Your task to perform on an android device: toggle priority inbox in the gmail app Image 0: 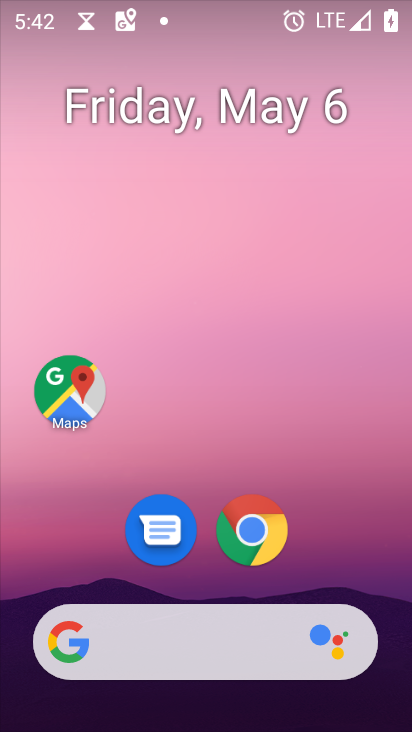
Step 0: drag from (338, 550) to (245, 68)
Your task to perform on an android device: toggle priority inbox in the gmail app Image 1: 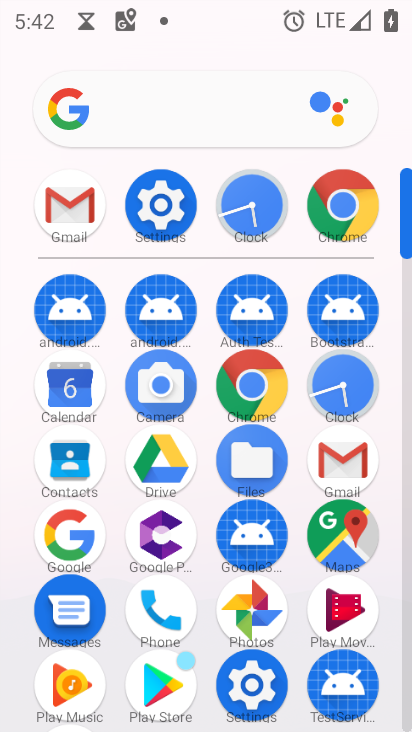
Step 1: click (350, 462)
Your task to perform on an android device: toggle priority inbox in the gmail app Image 2: 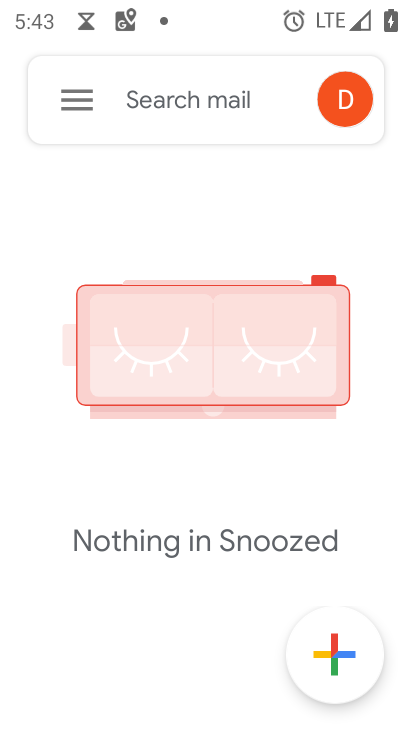
Step 2: click (68, 100)
Your task to perform on an android device: toggle priority inbox in the gmail app Image 3: 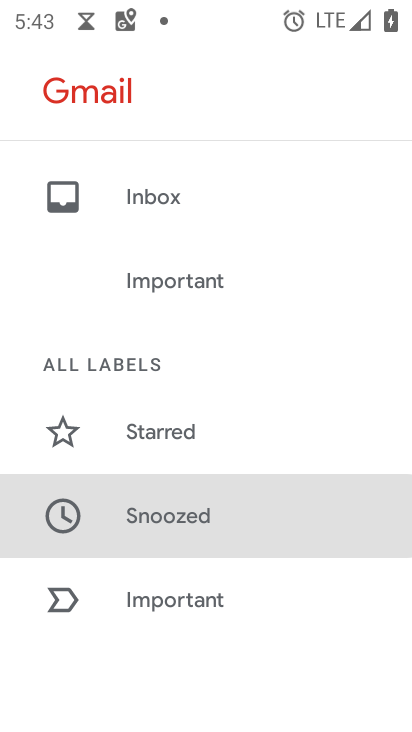
Step 3: drag from (243, 615) to (235, 142)
Your task to perform on an android device: toggle priority inbox in the gmail app Image 4: 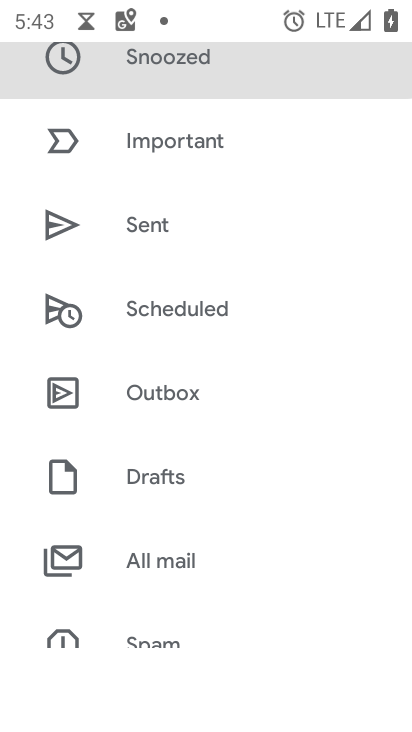
Step 4: drag from (199, 589) to (220, 161)
Your task to perform on an android device: toggle priority inbox in the gmail app Image 5: 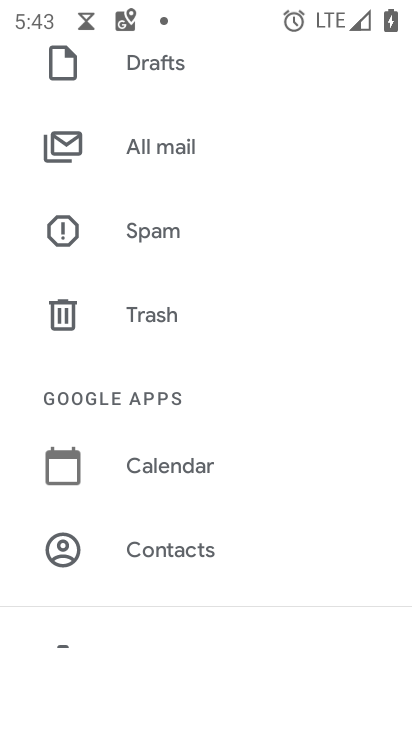
Step 5: drag from (217, 565) to (213, 165)
Your task to perform on an android device: toggle priority inbox in the gmail app Image 6: 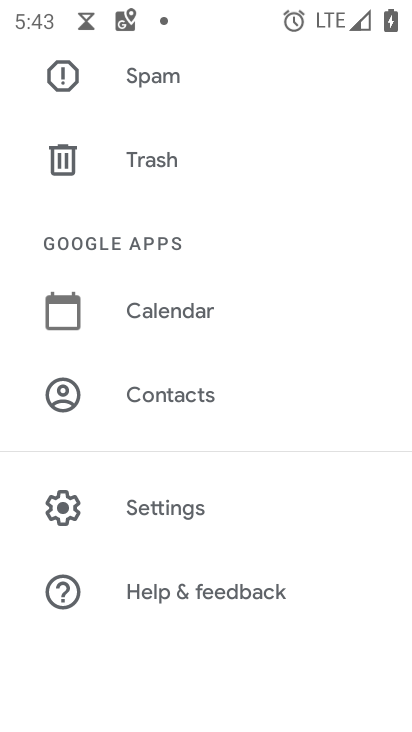
Step 6: click (167, 546)
Your task to perform on an android device: toggle priority inbox in the gmail app Image 7: 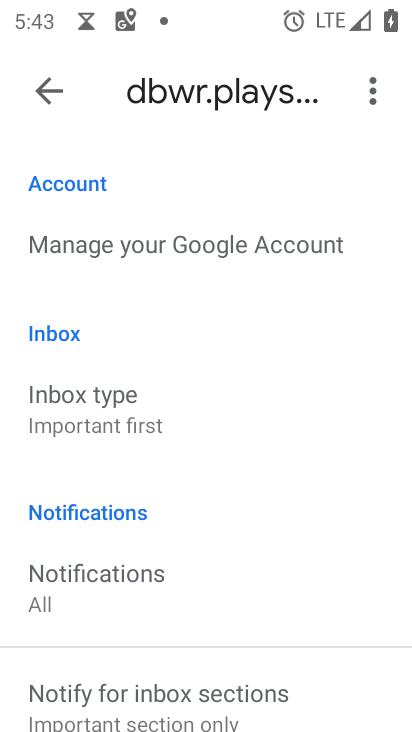
Step 7: click (95, 413)
Your task to perform on an android device: toggle priority inbox in the gmail app Image 8: 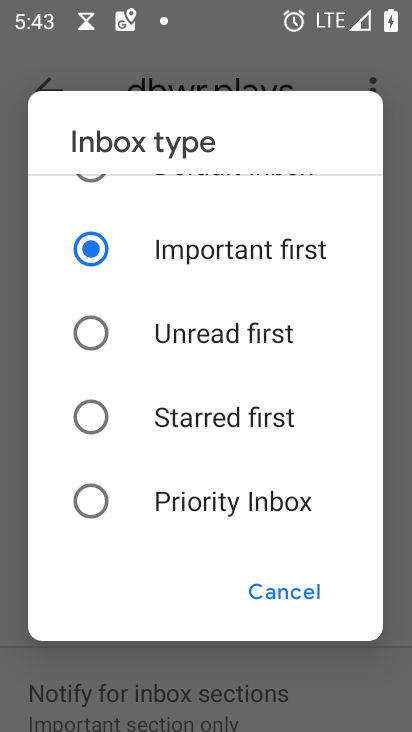
Step 8: click (88, 500)
Your task to perform on an android device: toggle priority inbox in the gmail app Image 9: 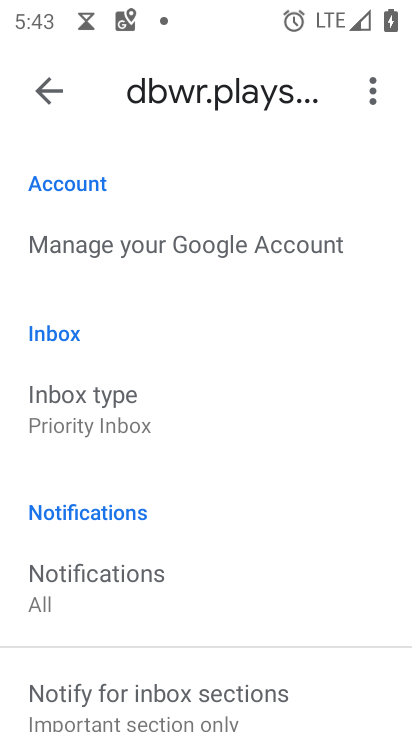
Step 9: task complete